Your task to perform on an android device: turn notification dots on Image 0: 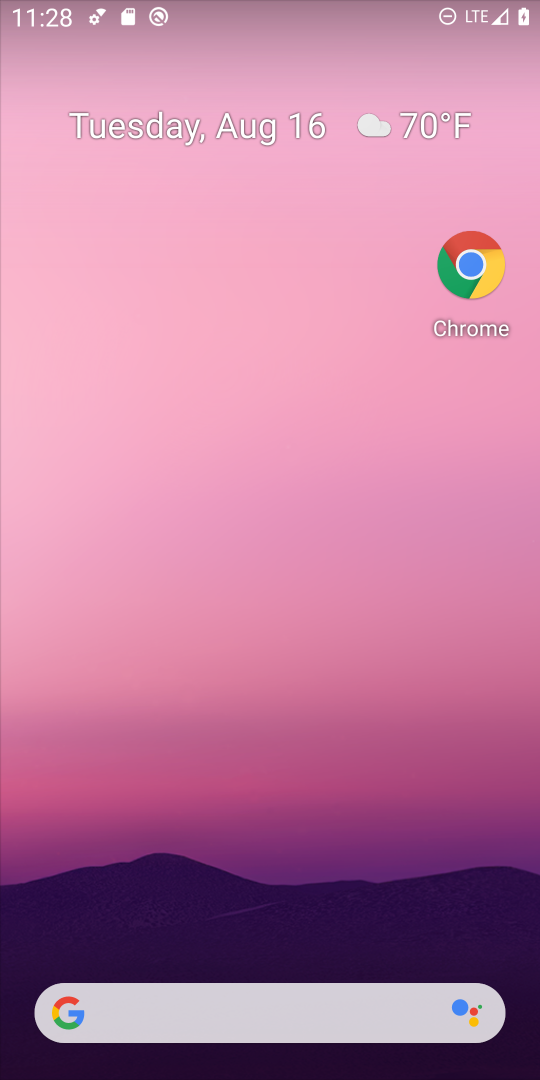
Step 0: drag from (400, 665) to (450, 251)
Your task to perform on an android device: turn notification dots on Image 1: 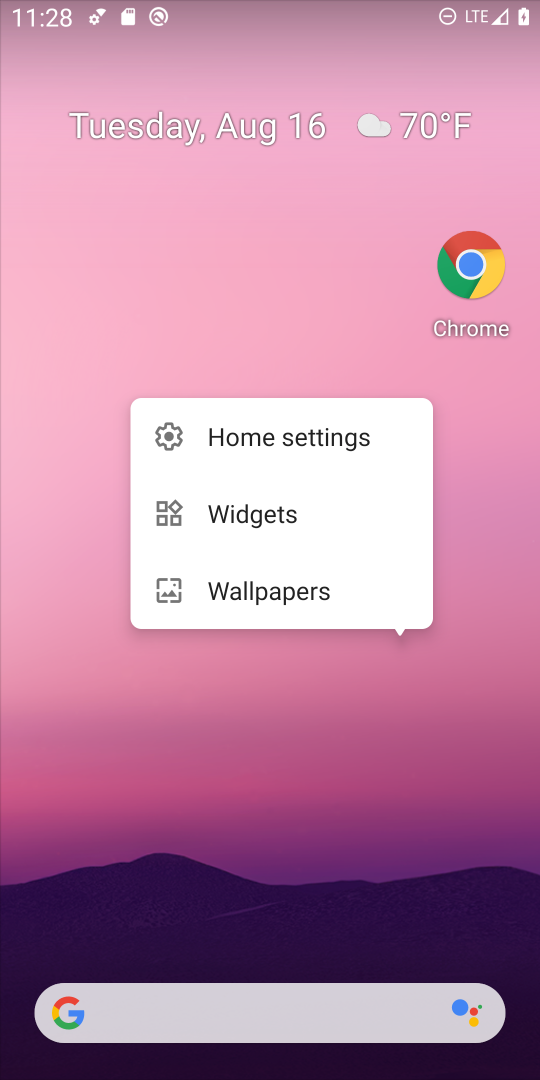
Step 1: click (432, 735)
Your task to perform on an android device: turn notification dots on Image 2: 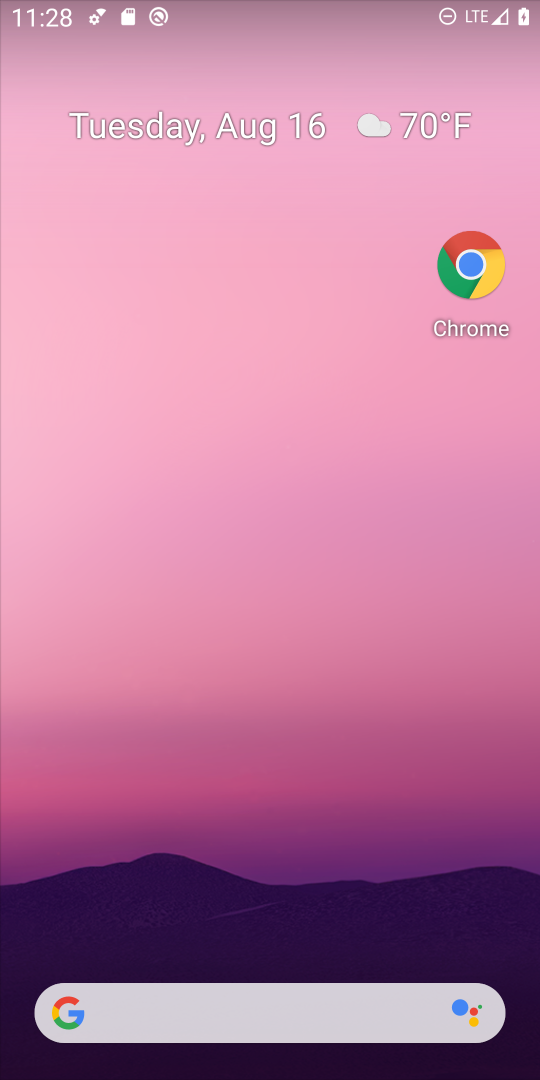
Step 2: drag from (310, 957) to (380, 211)
Your task to perform on an android device: turn notification dots on Image 3: 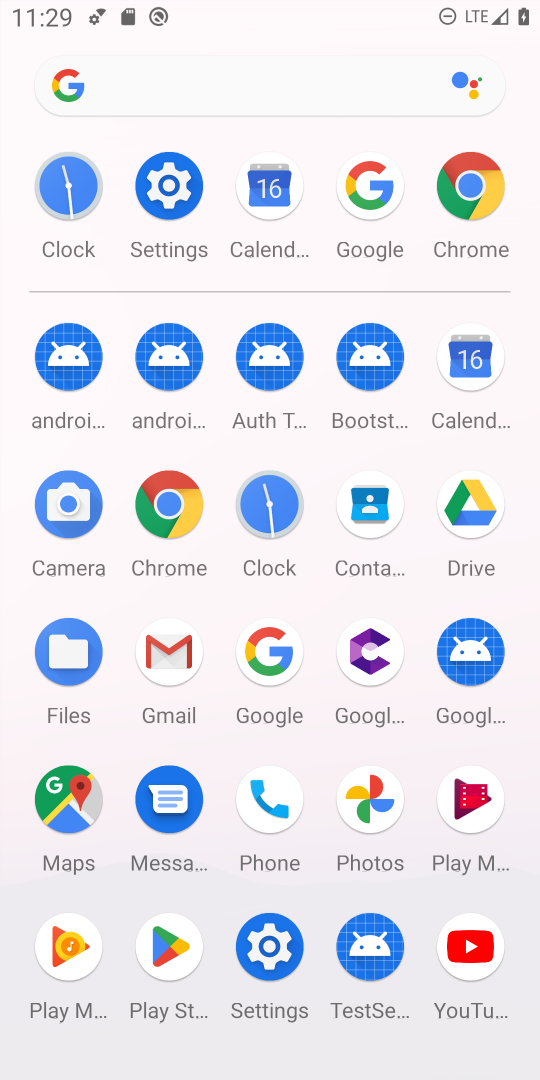
Step 3: click (186, 202)
Your task to perform on an android device: turn notification dots on Image 4: 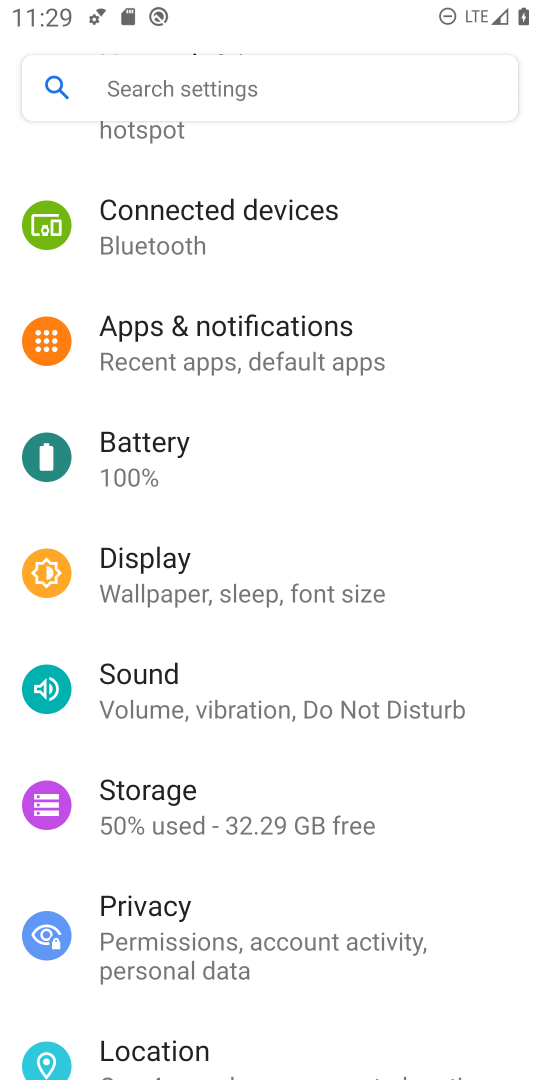
Step 4: click (302, 354)
Your task to perform on an android device: turn notification dots on Image 5: 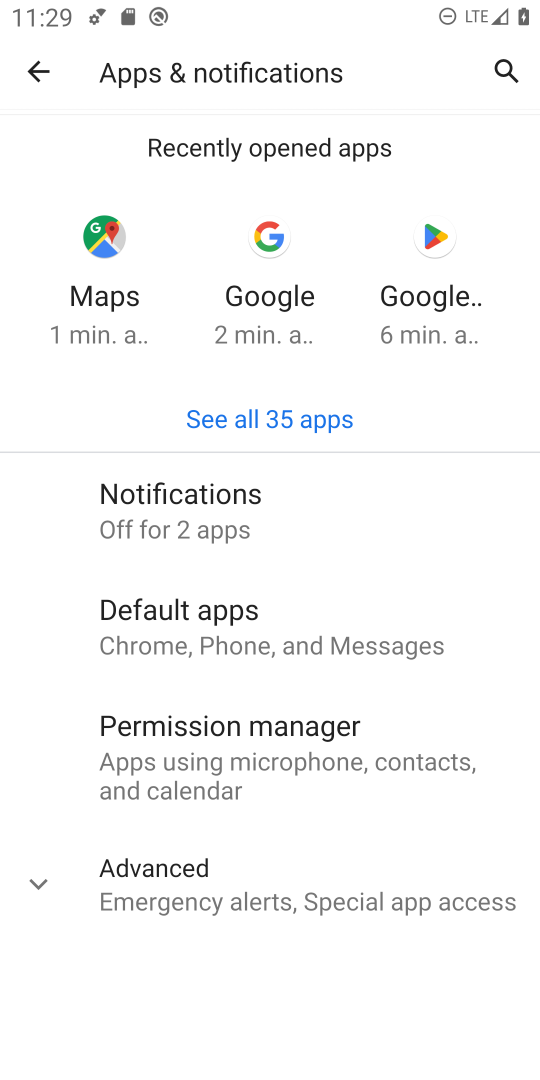
Step 5: click (301, 506)
Your task to perform on an android device: turn notification dots on Image 6: 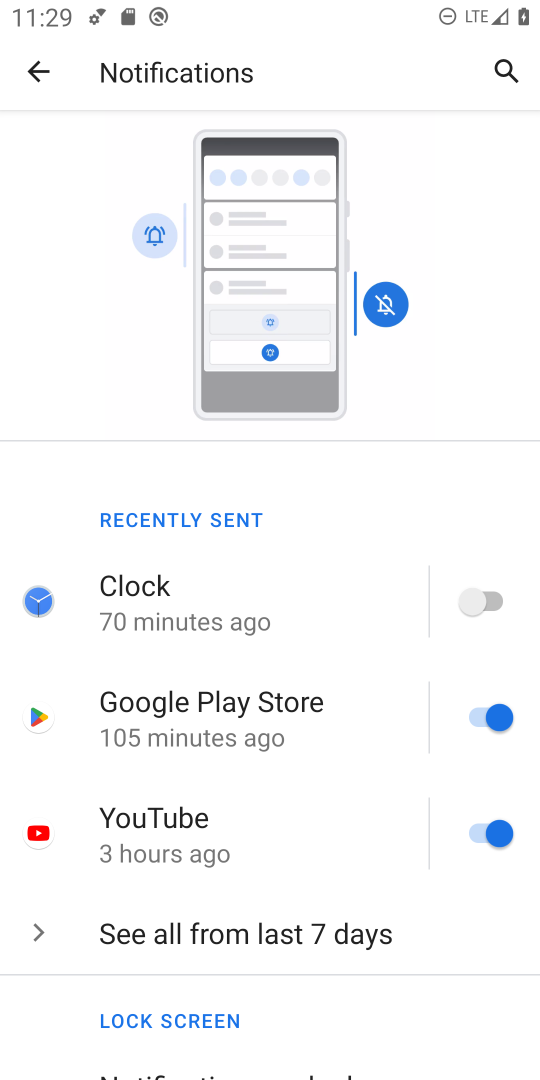
Step 6: drag from (265, 875) to (386, 395)
Your task to perform on an android device: turn notification dots on Image 7: 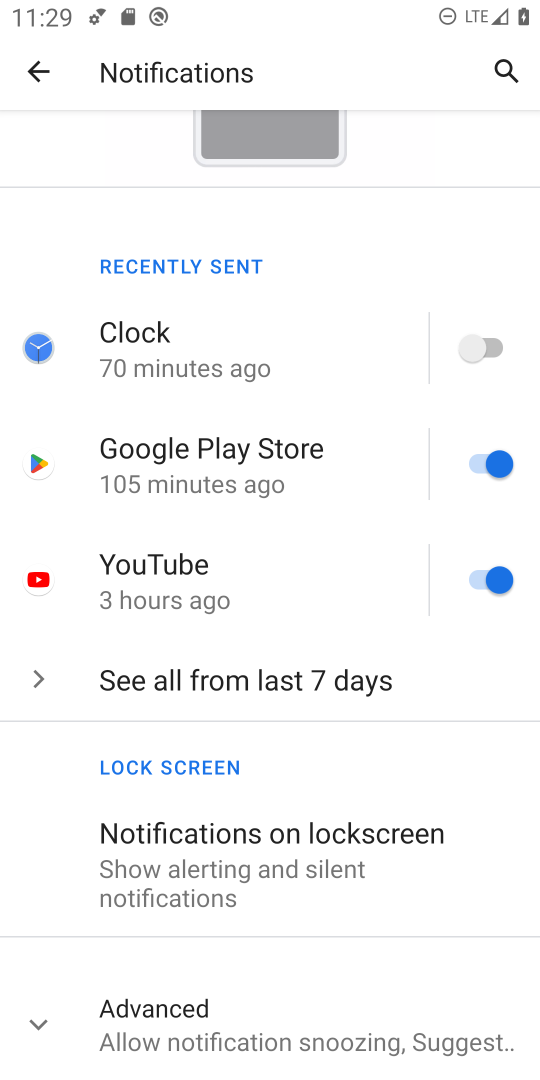
Step 7: drag from (296, 875) to (395, 431)
Your task to perform on an android device: turn notification dots on Image 8: 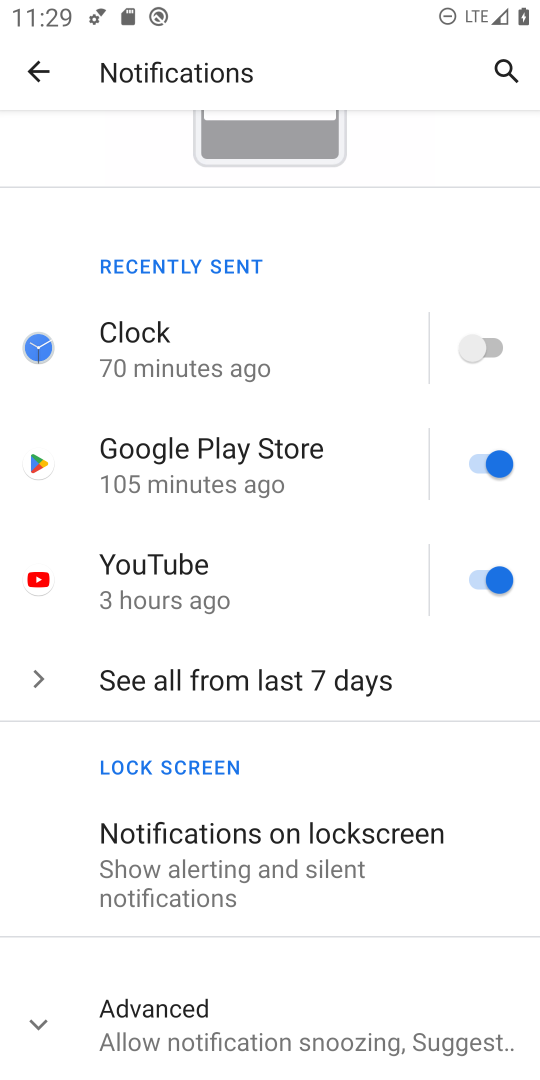
Step 8: click (272, 1005)
Your task to perform on an android device: turn notification dots on Image 9: 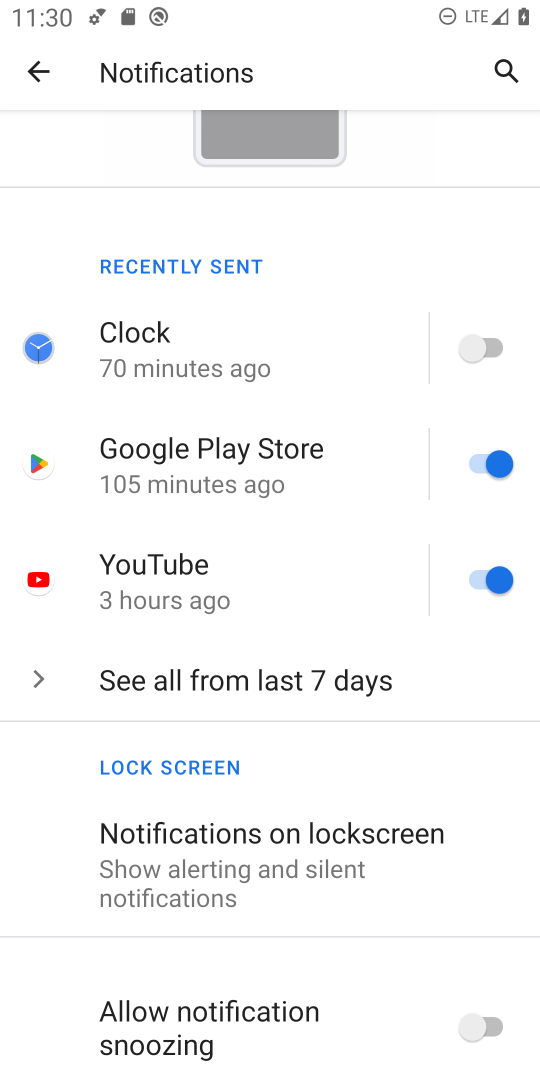
Step 9: drag from (306, 896) to (415, 327)
Your task to perform on an android device: turn notification dots on Image 10: 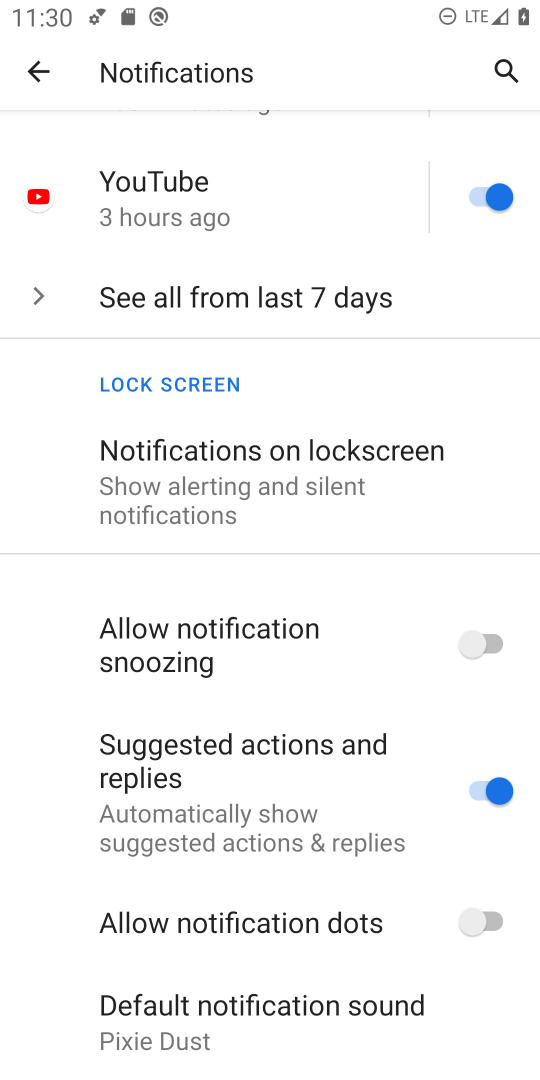
Step 10: click (357, 924)
Your task to perform on an android device: turn notification dots on Image 11: 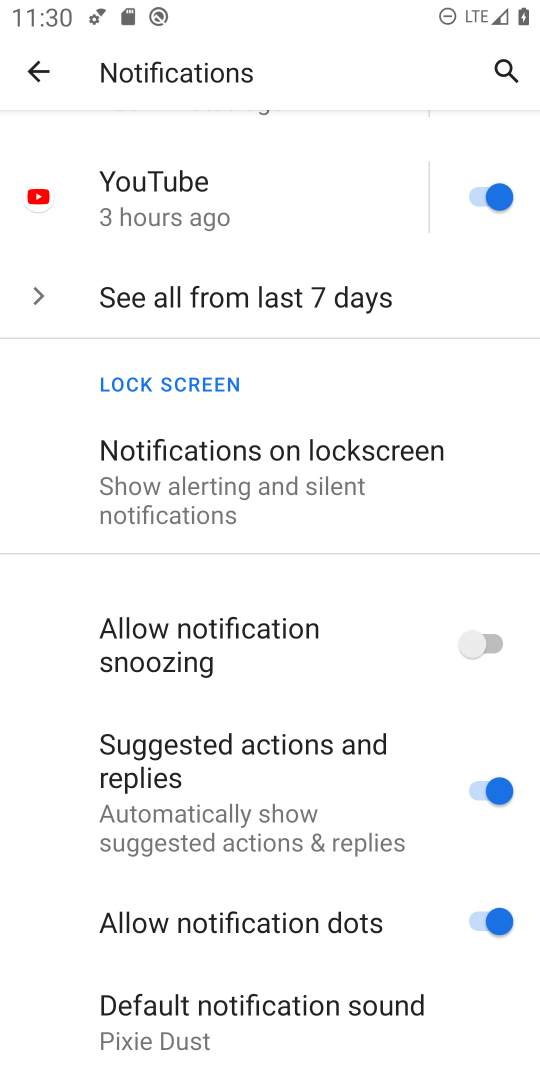
Step 11: task complete